Your task to perform on an android device: Play the last video I watched on Youtube Image 0: 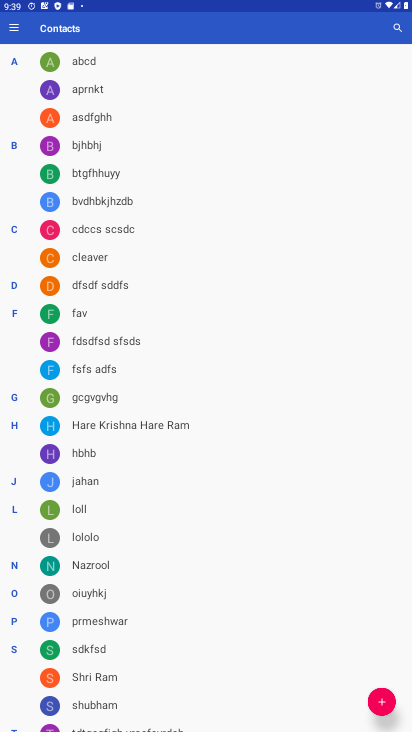
Step 0: press home button
Your task to perform on an android device: Play the last video I watched on Youtube Image 1: 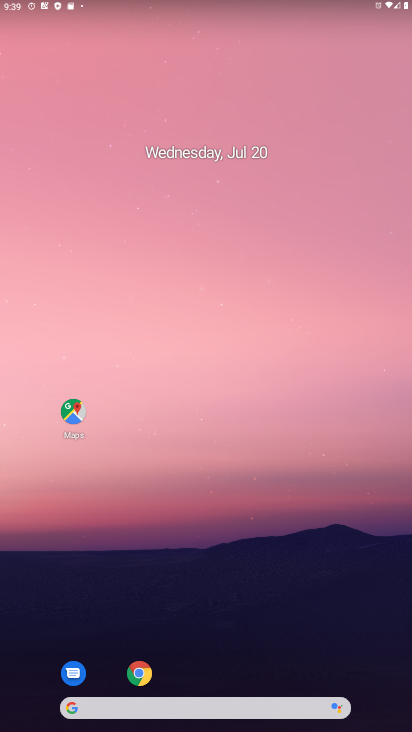
Step 1: drag from (234, 727) to (167, 223)
Your task to perform on an android device: Play the last video I watched on Youtube Image 2: 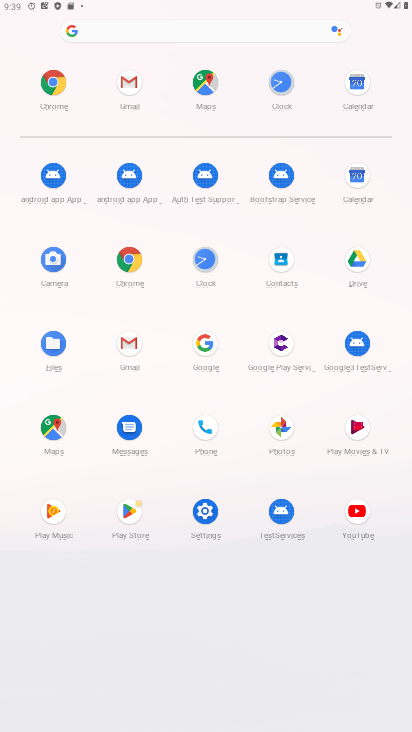
Step 2: click (356, 509)
Your task to perform on an android device: Play the last video I watched on Youtube Image 3: 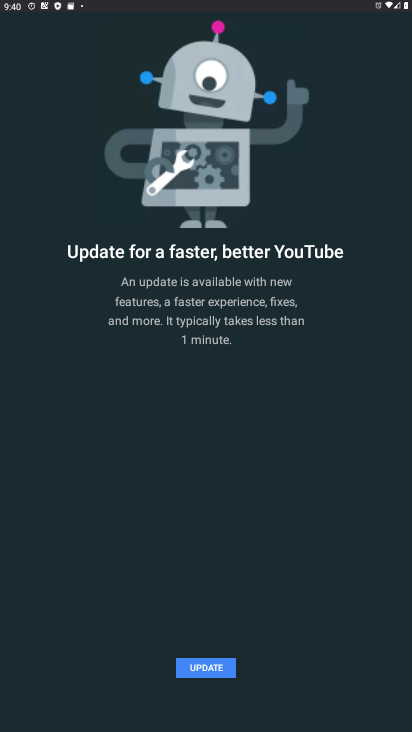
Step 3: task complete